Your task to perform on an android device: open app "TextNow: Call + Text Unlimited" Image 0: 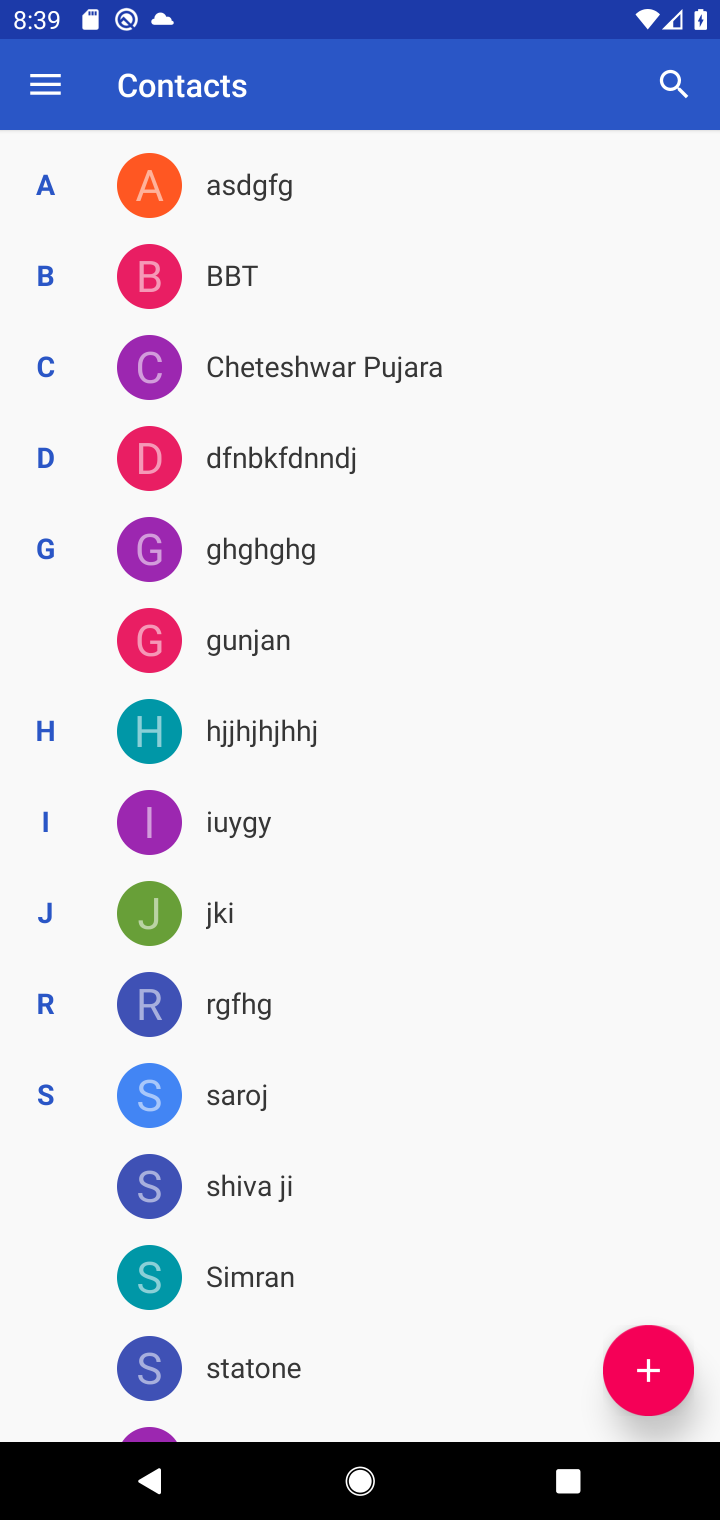
Step 0: press home button
Your task to perform on an android device: open app "TextNow: Call + Text Unlimited" Image 1: 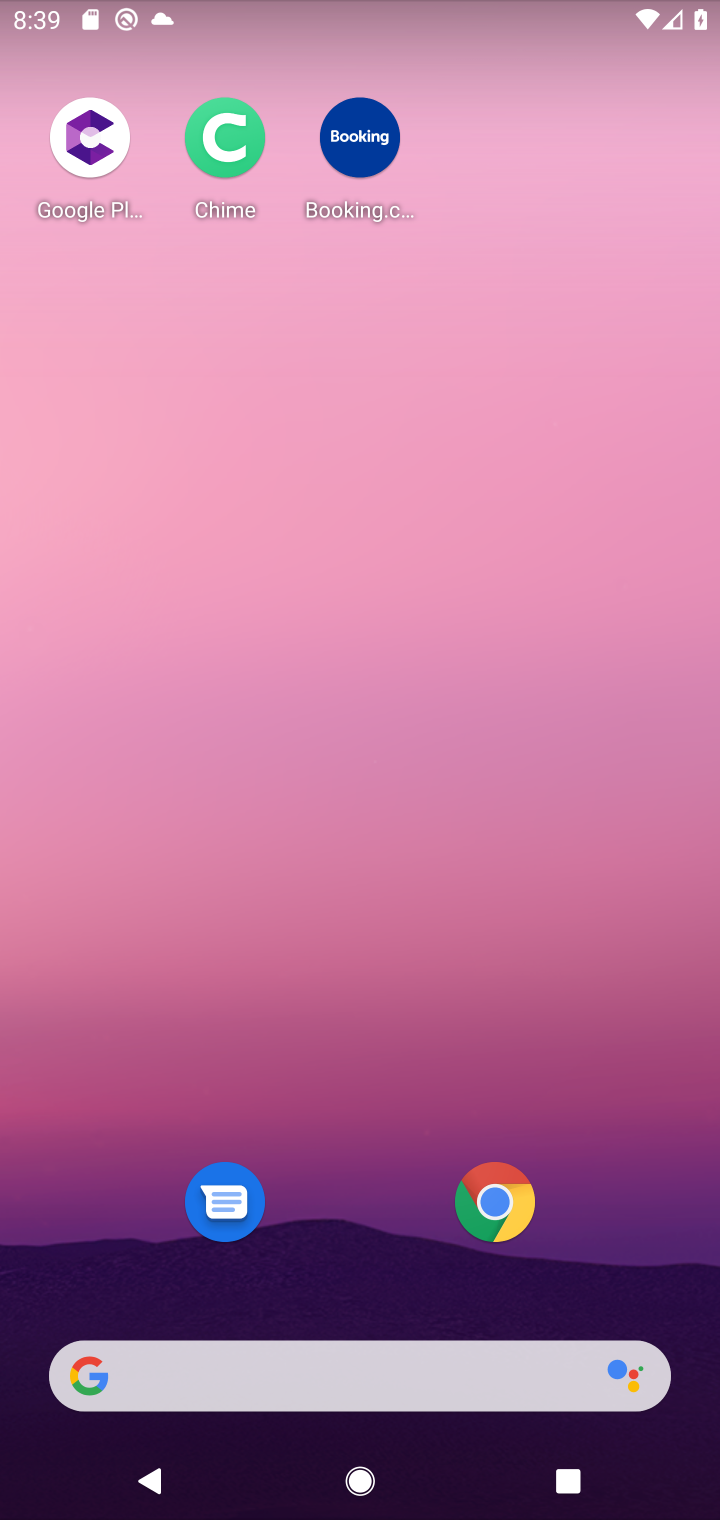
Step 1: drag from (311, 1166) to (311, 193)
Your task to perform on an android device: open app "TextNow: Call + Text Unlimited" Image 2: 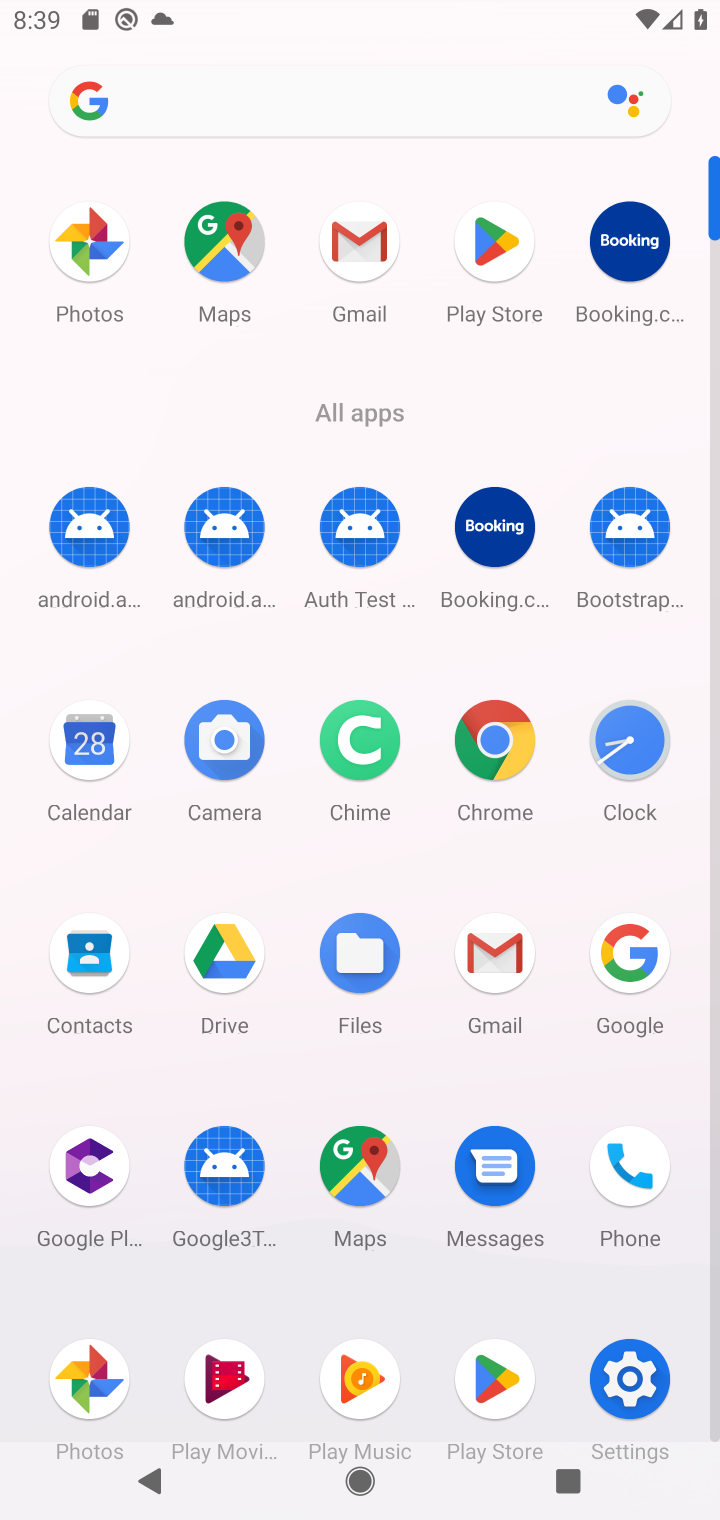
Step 2: click (485, 248)
Your task to perform on an android device: open app "TextNow: Call + Text Unlimited" Image 3: 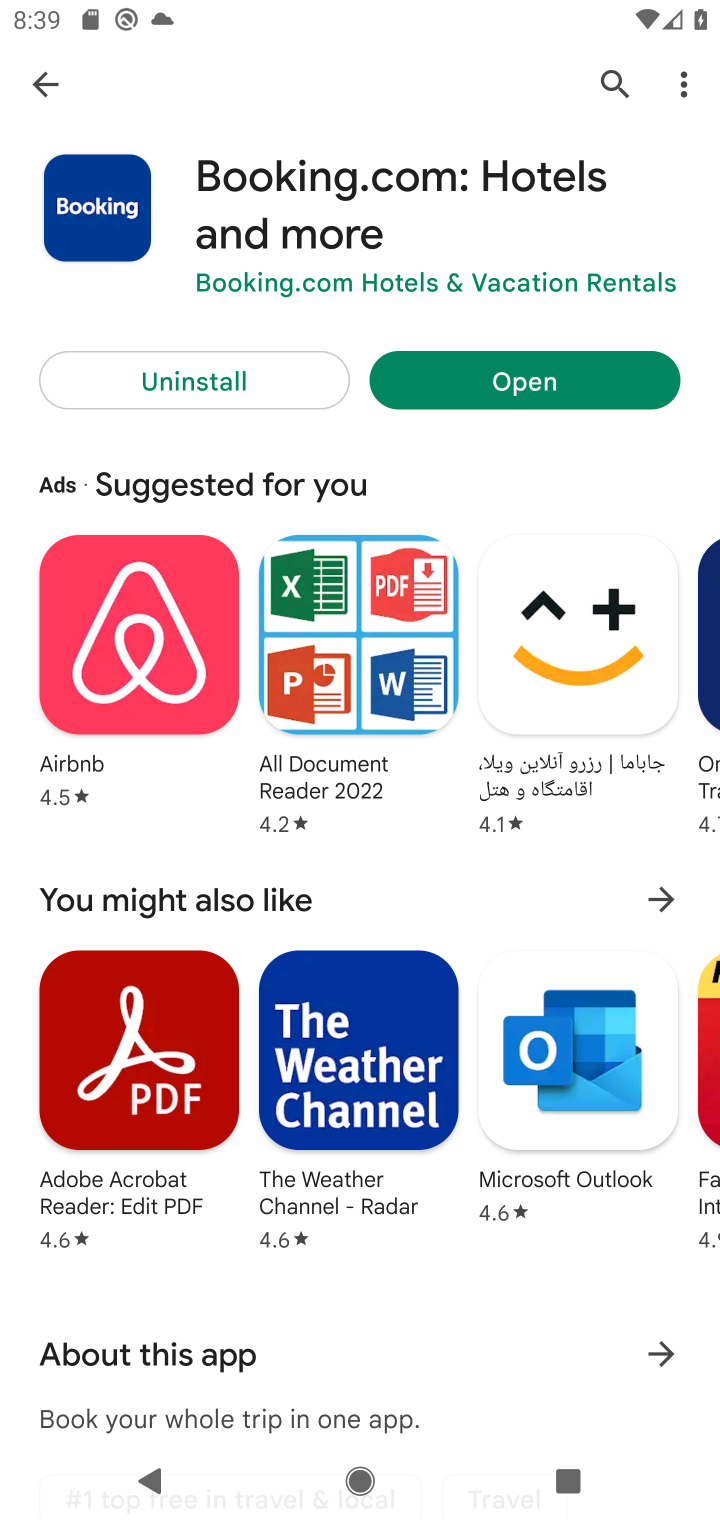
Step 3: click (33, 73)
Your task to perform on an android device: open app "TextNow: Call + Text Unlimited" Image 4: 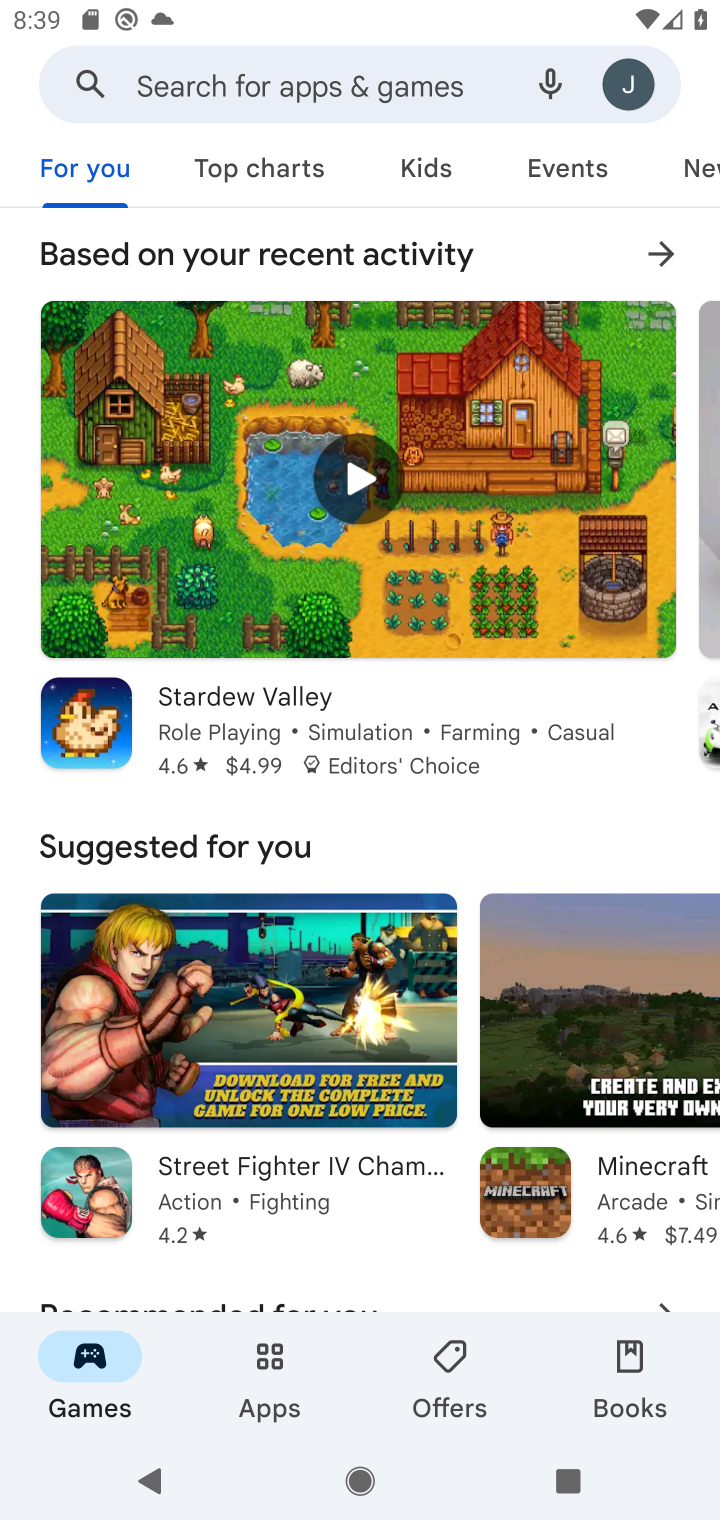
Step 4: click (342, 87)
Your task to perform on an android device: open app "TextNow: Call + Text Unlimited" Image 5: 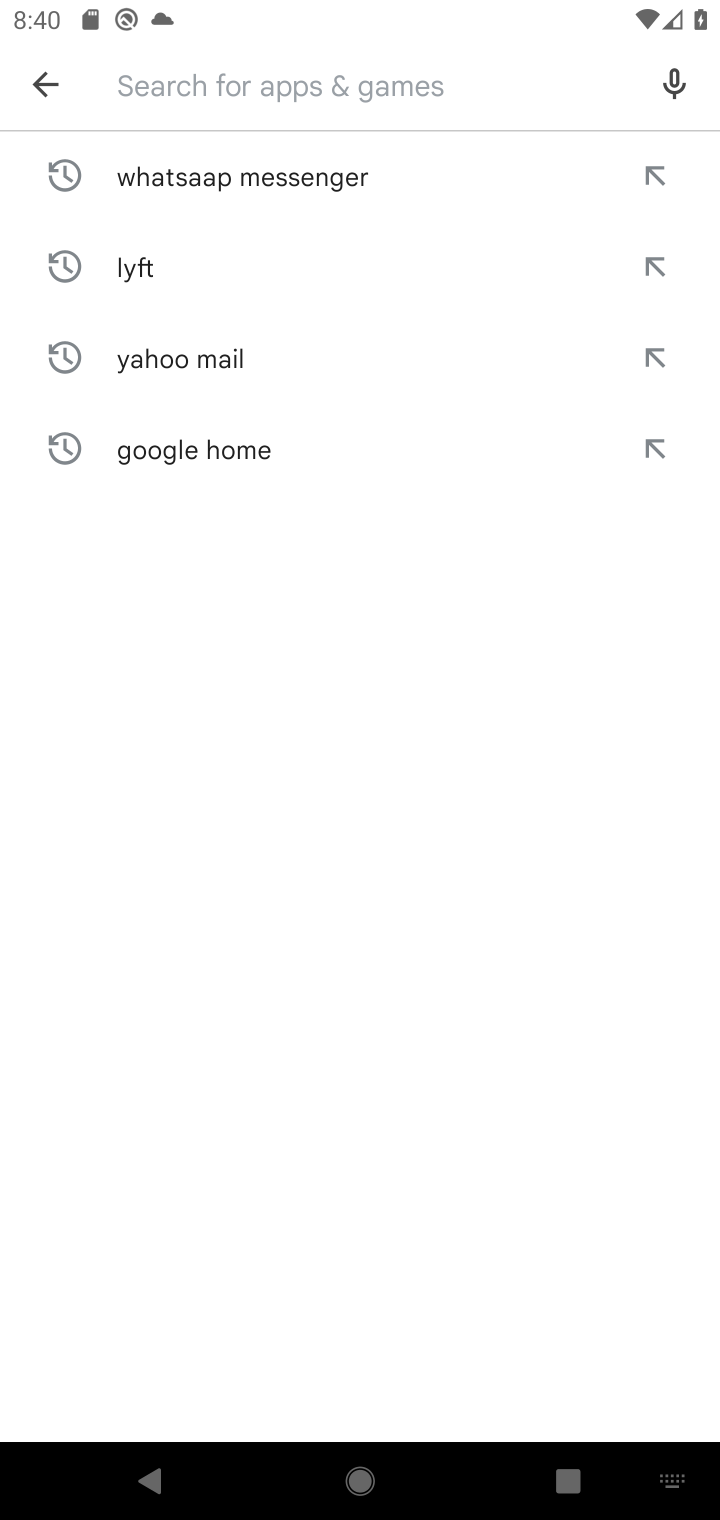
Step 5: type "textnow: Call+ text unlimted"
Your task to perform on an android device: open app "TextNow: Call + Text Unlimited" Image 6: 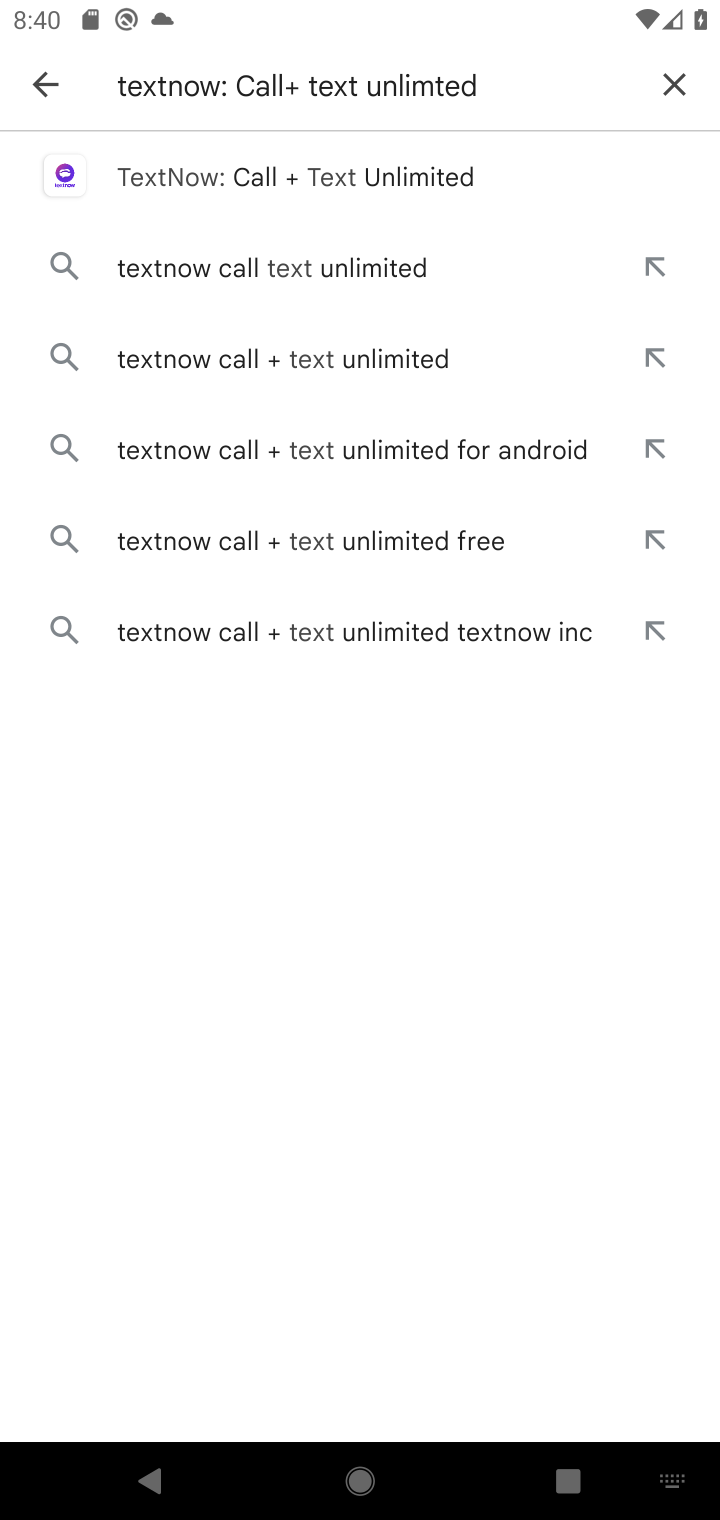
Step 6: click (212, 159)
Your task to perform on an android device: open app "TextNow: Call + Text Unlimited" Image 7: 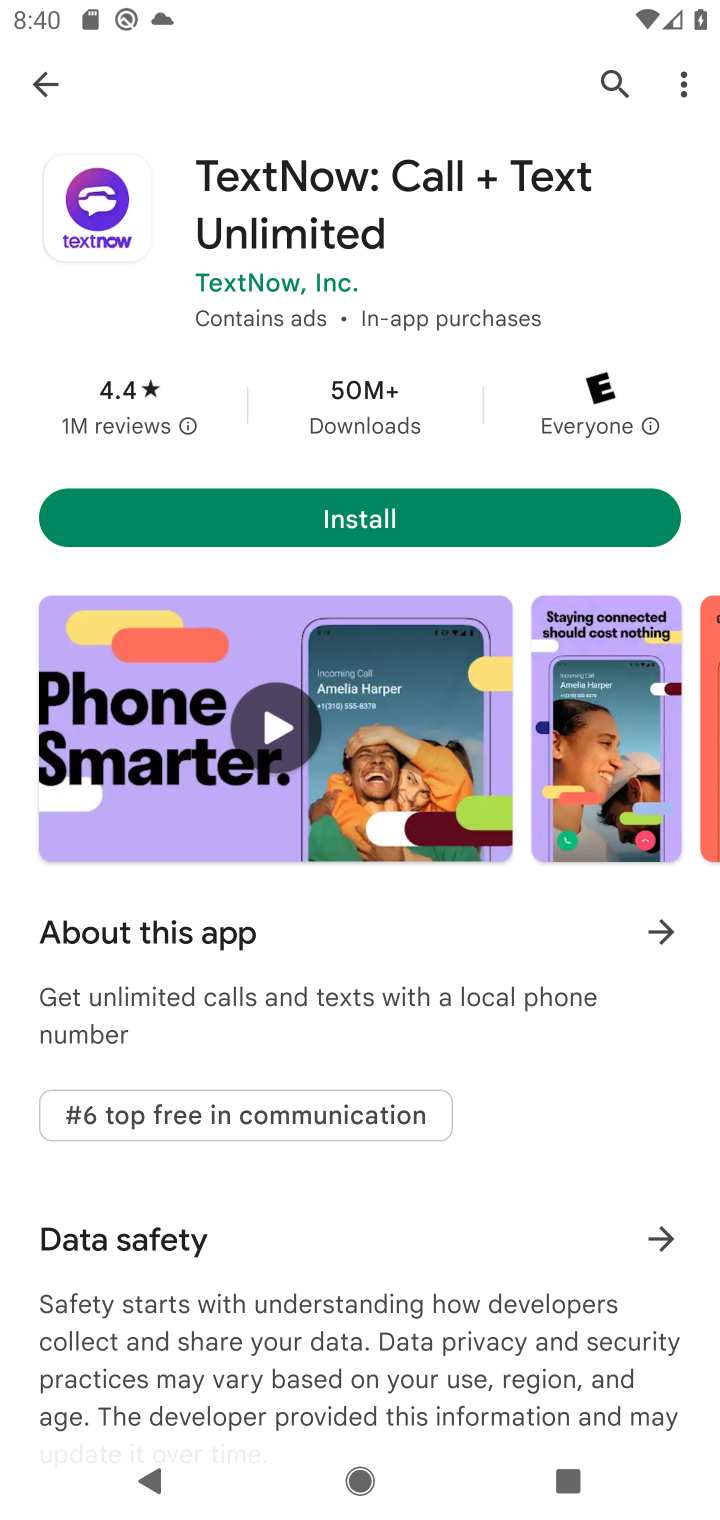
Step 7: task complete